Your task to perform on an android device: turn vacation reply on in the gmail app Image 0: 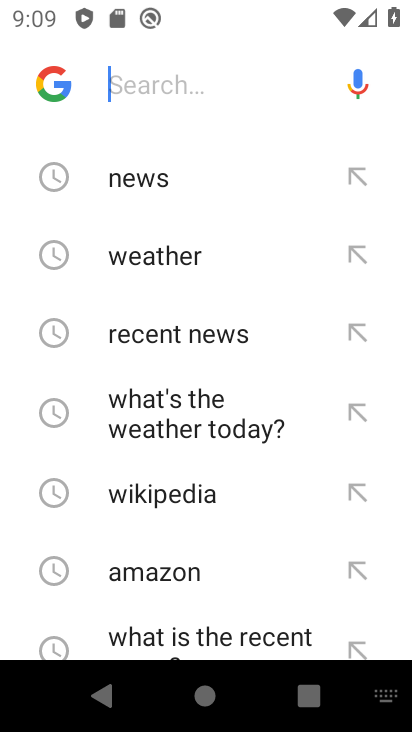
Step 0: press home button
Your task to perform on an android device: turn vacation reply on in the gmail app Image 1: 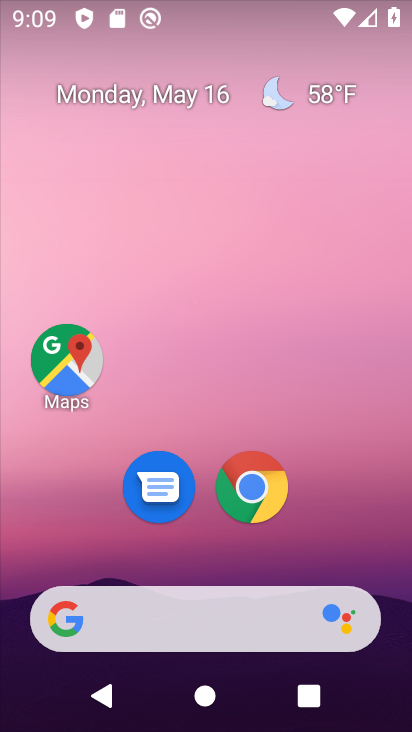
Step 1: drag from (216, 546) to (259, 249)
Your task to perform on an android device: turn vacation reply on in the gmail app Image 2: 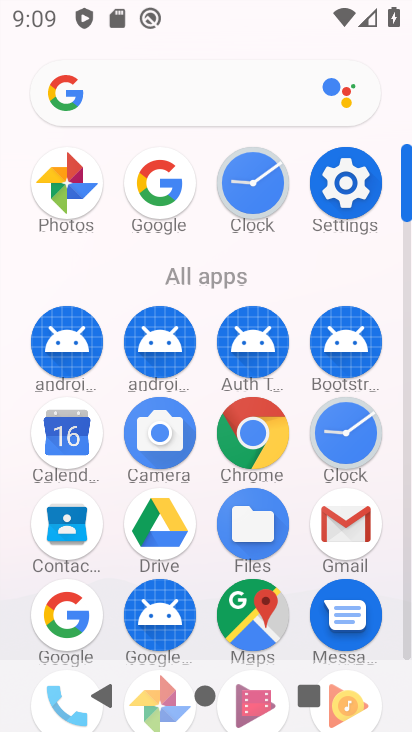
Step 2: click (350, 515)
Your task to perform on an android device: turn vacation reply on in the gmail app Image 3: 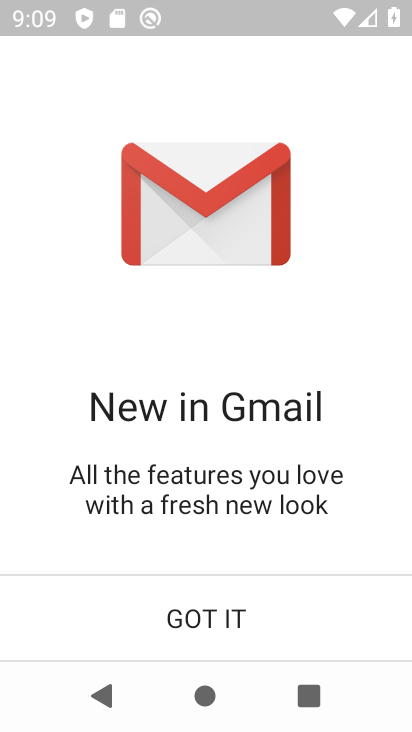
Step 3: click (209, 606)
Your task to perform on an android device: turn vacation reply on in the gmail app Image 4: 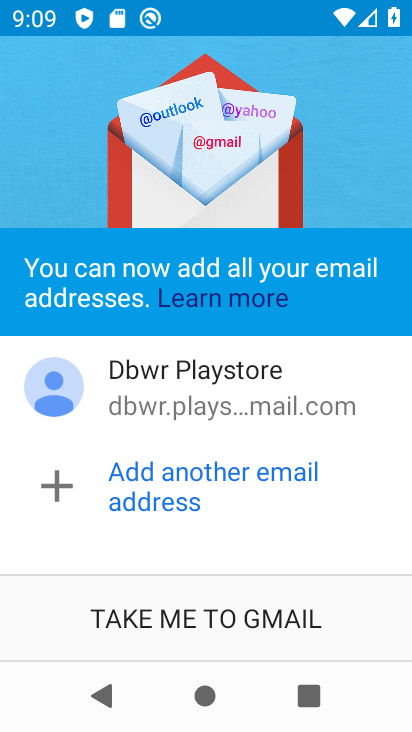
Step 4: click (228, 608)
Your task to perform on an android device: turn vacation reply on in the gmail app Image 5: 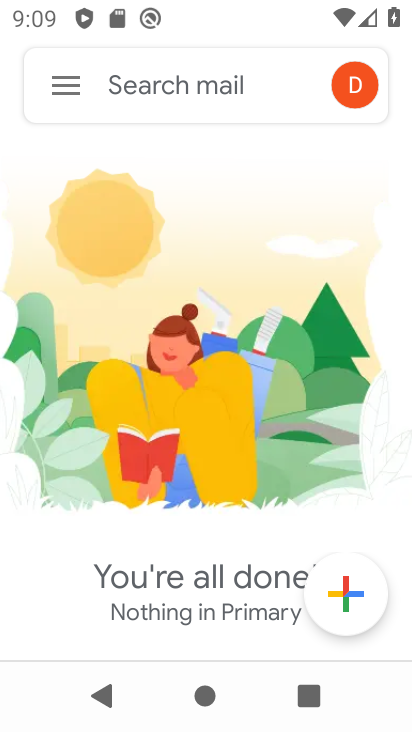
Step 5: click (63, 94)
Your task to perform on an android device: turn vacation reply on in the gmail app Image 6: 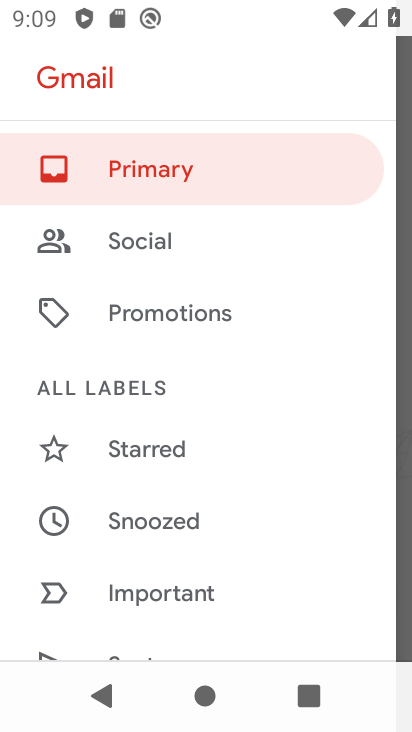
Step 6: drag from (160, 535) to (259, 39)
Your task to perform on an android device: turn vacation reply on in the gmail app Image 7: 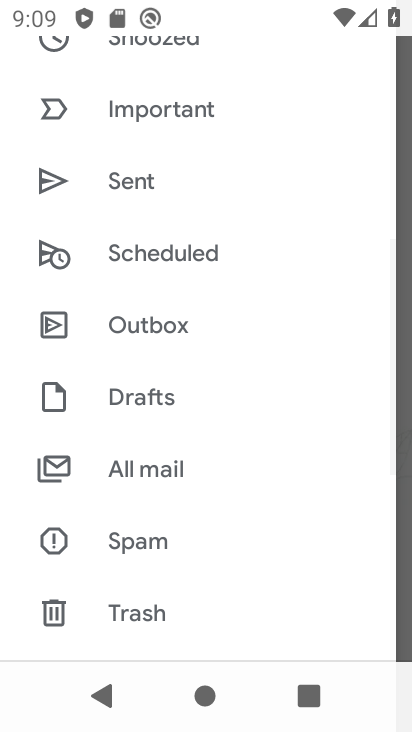
Step 7: drag from (215, 558) to (272, 23)
Your task to perform on an android device: turn vacation reply on in the gmail app Image 8: 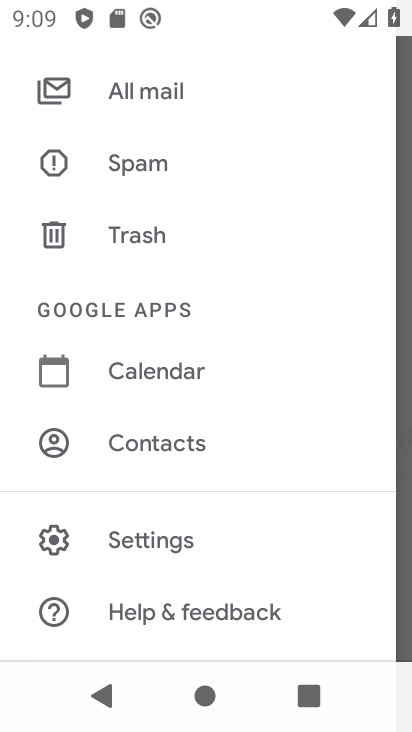
Step 8: click (143, 530)
Your task to perform on an android device: turn vacation reply on in the gmail app Image 9: 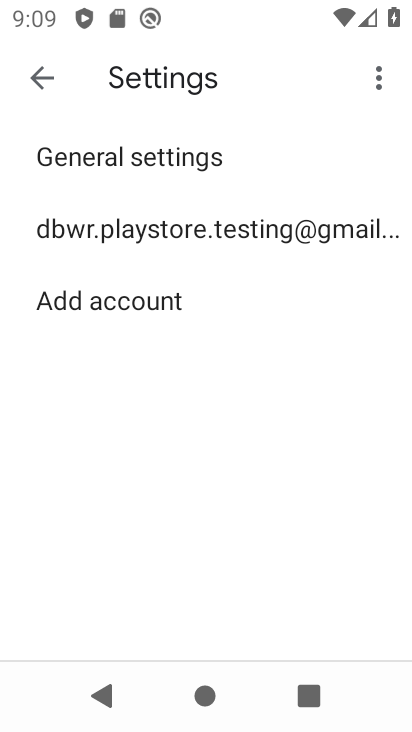
Step 9: click (122, 236)
Your task to perform on an android device: turn vacation reply on in the gmail app Image 10: 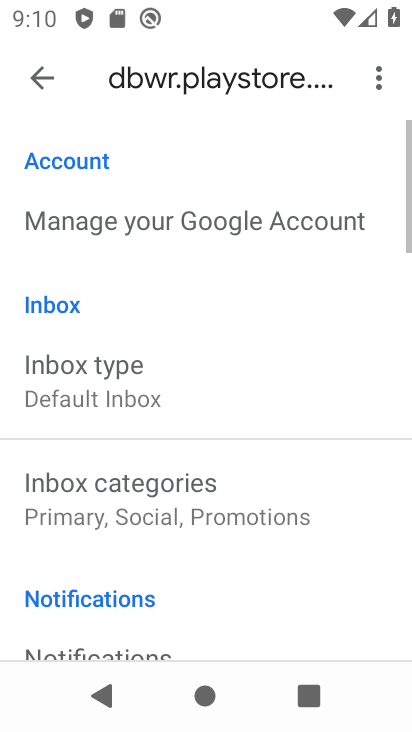
Step 10: drag from (182, 560) to (188, 105)
Your task to perform on an android device: turn vacation reply on in the gmail app Image 11: 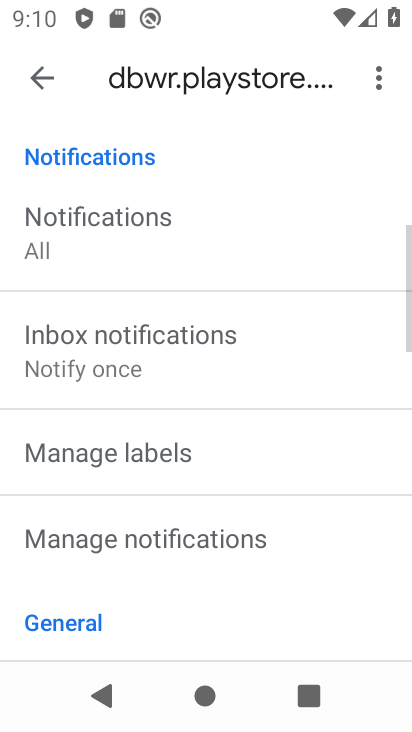
Step 11: drag from (141, 568) to (148, 115)
Your task to perform on an android device: turn vacation reply on in the gmail app Image 12: 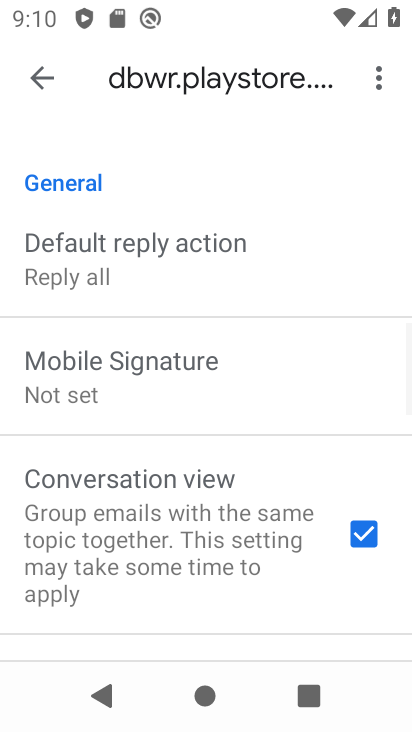
Step 12: drag from (195, 481) to (189, 126)
Your task to perform on an android device: turn vacation reply on in the gmail app Image 13: 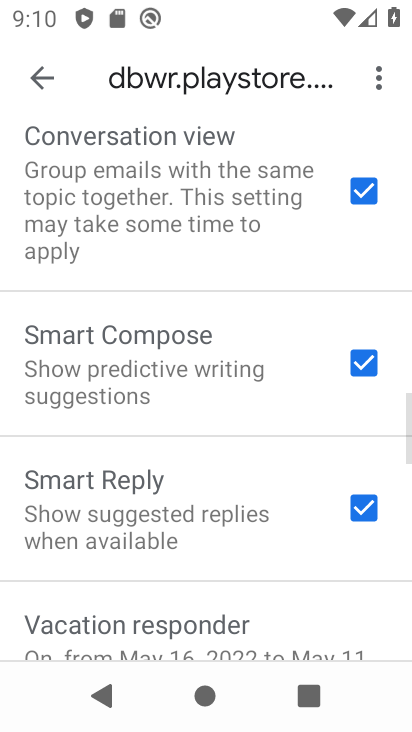
Step 13: drag from (153, 578) to (152, 464)
Your task to perform on an android device: turn vacation reply on in the gmail app Image 14: 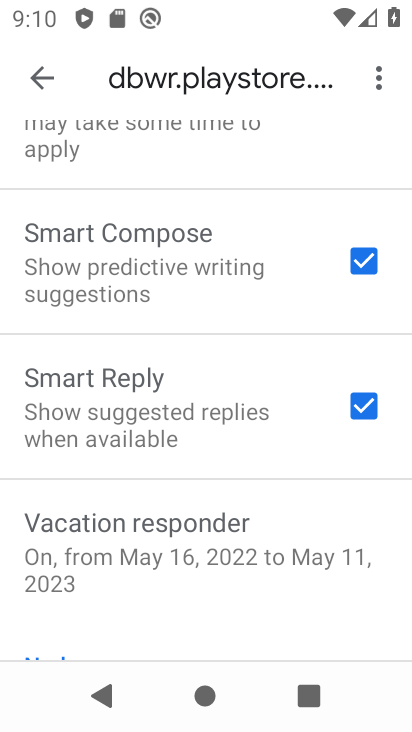
Step 14: click (207, 562)
Your task to perform on an android device: turn vacation reply on in the gmail app Image 15: 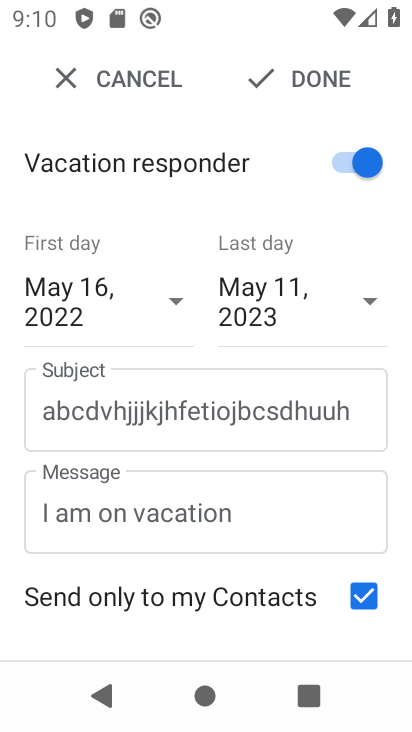
Step 15: task complete